Your task to perform on an android device: Open maps Image 0: 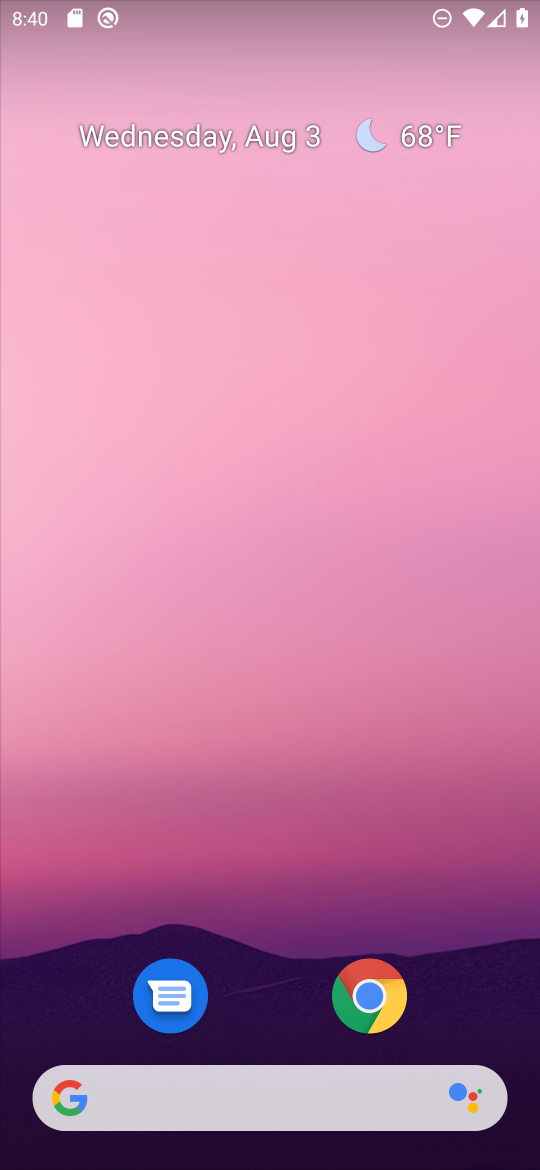
Step 0: drag from (279, 911) to (293, 0)
Your task to perform on an android device: Open maps Image 1: 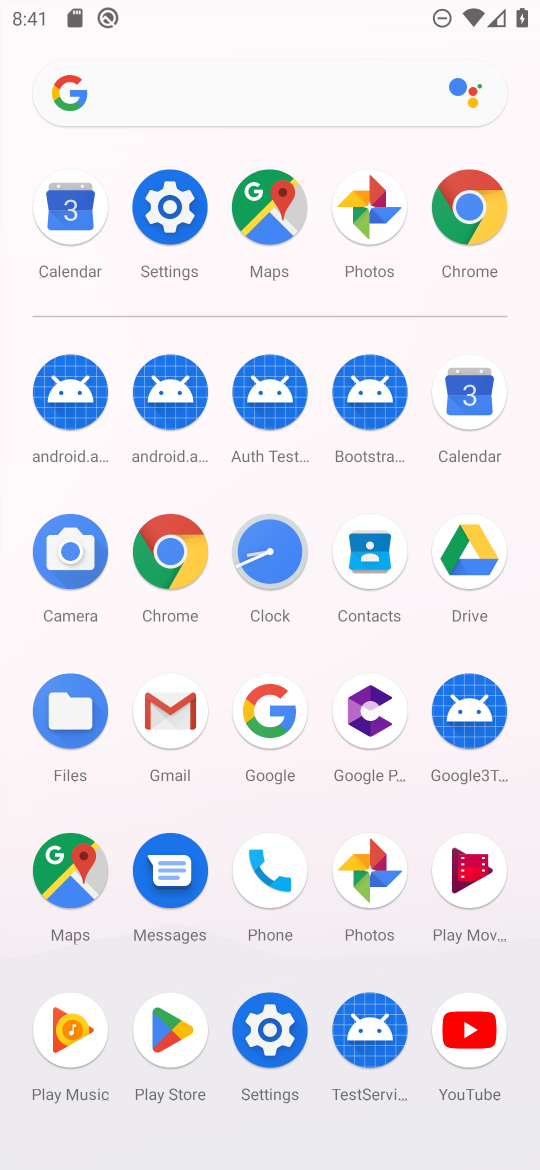
Step 1: click (274, 215)
Your task to perform on an android device: Open maps Image 2: 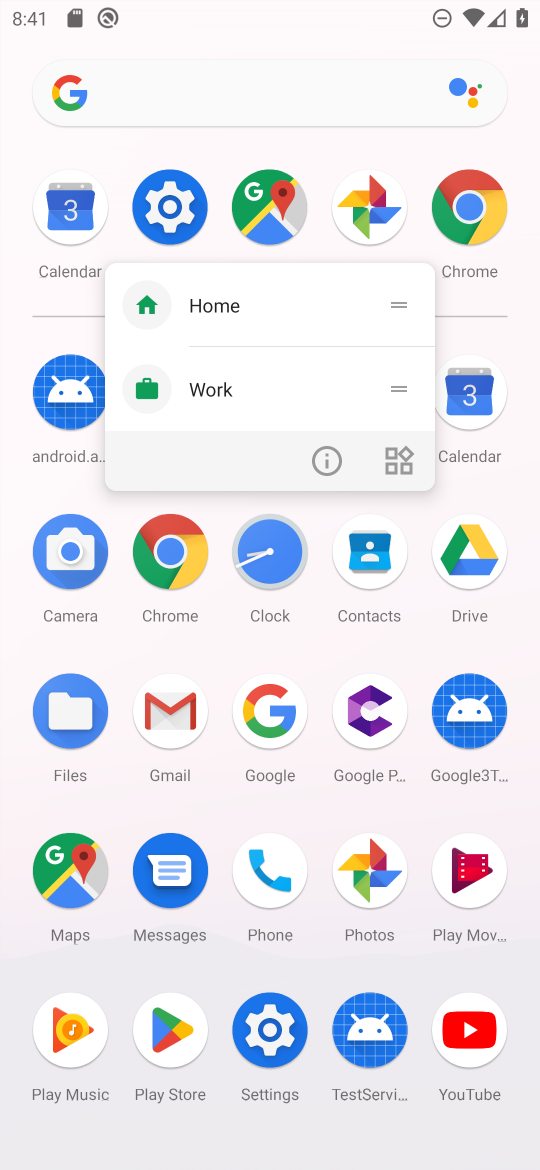
Step 2: click (269, 198)
Your task to perform on an android device: Open maps Image 3: 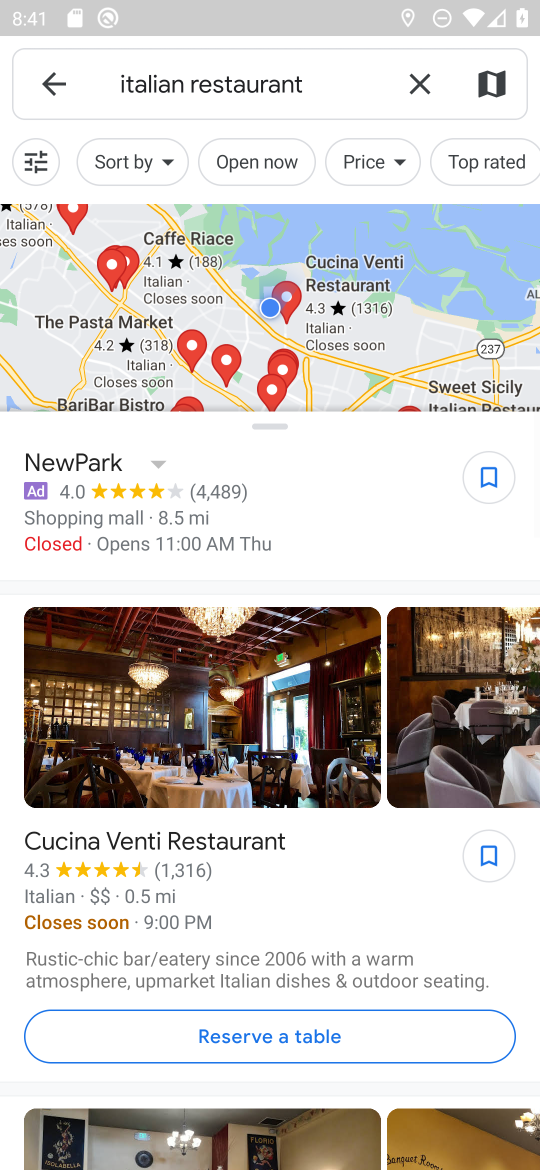
Step 3: click (418, 78)
Your task to perform on an android device: Open maps Image 4: 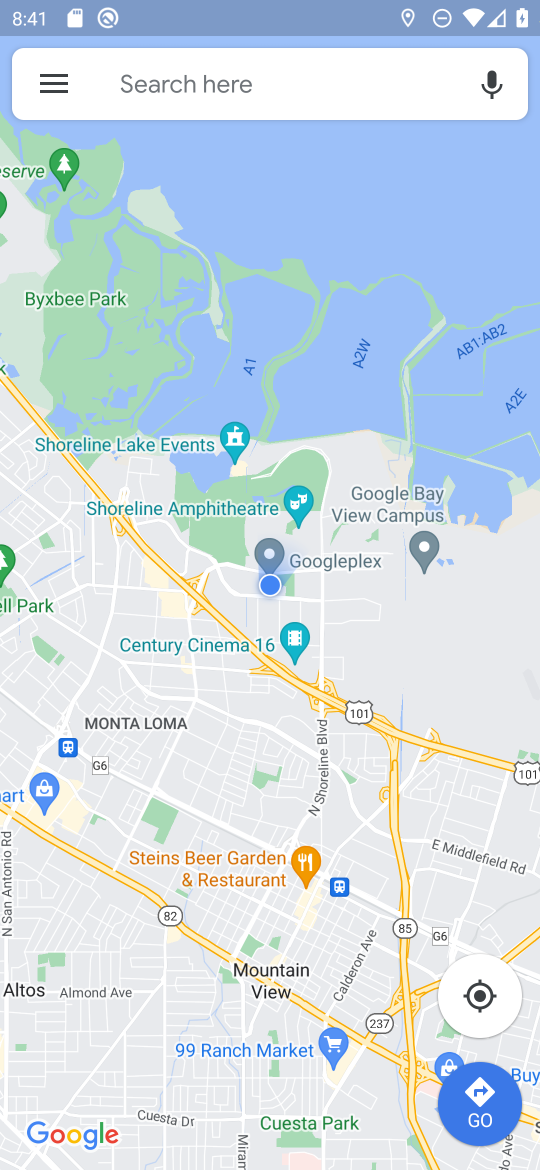
Step 4: task complete